Your task to perform on an android device: Search for Mexican restaurants on Maps Image 0: 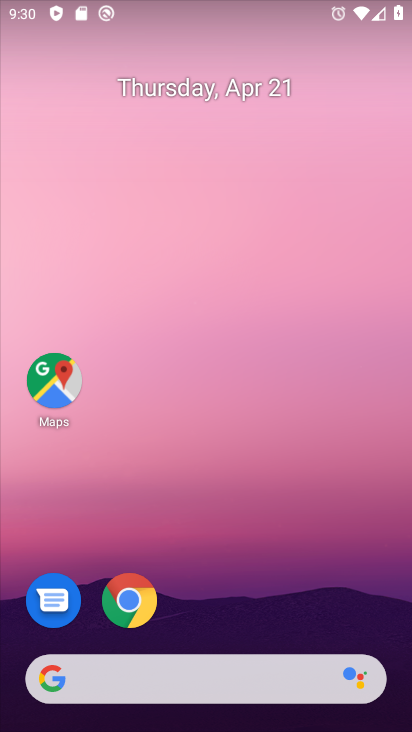
Step 0: click (53, 381)
Your task to perform on an android device: Search for Mexican restaurants on Maps Image 1: 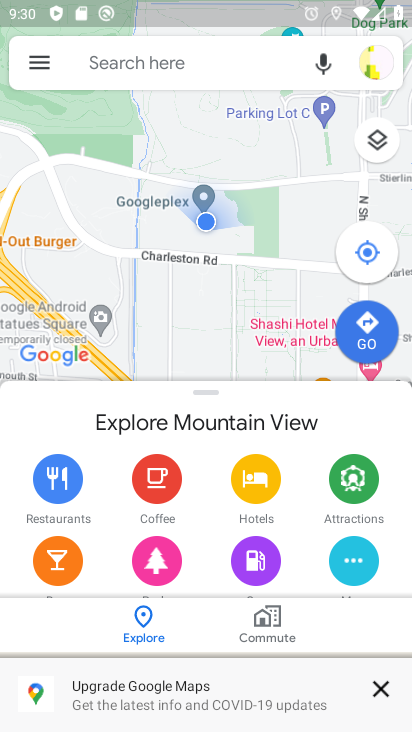
Step 1: click (196, 70)
Your task to perform on an android device: Search for Mexican restaurants on Maps Image 2: 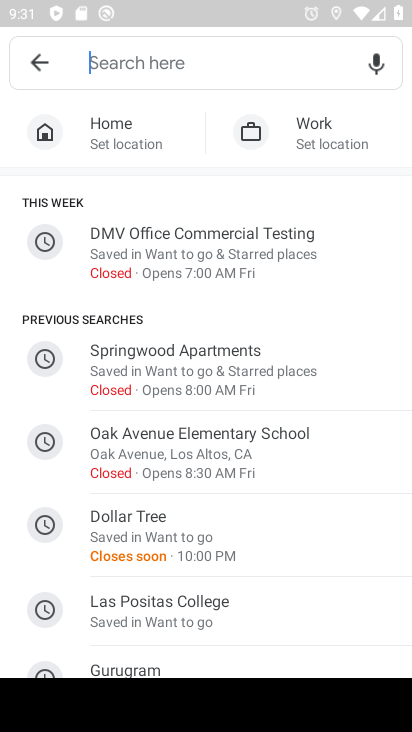
Step 2: type "mexican restaurentts"
Your task to perform on an android device: Search for Mexican restaurants on Maps Image 3: 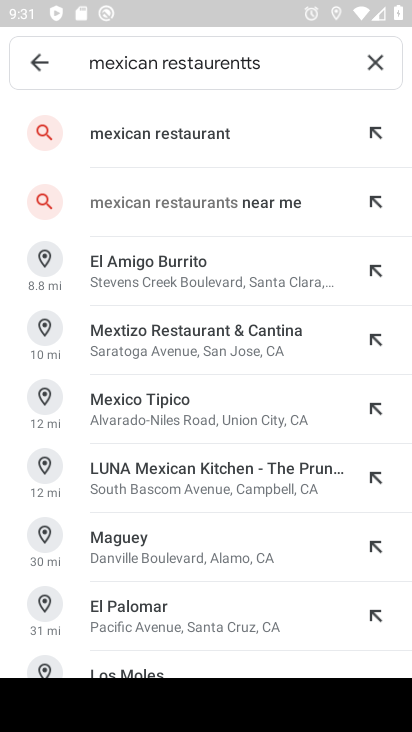
Step 3: click (197, 130)
Your task to perform on an android device: Search for Mexican restaurants on Maps Image 4: 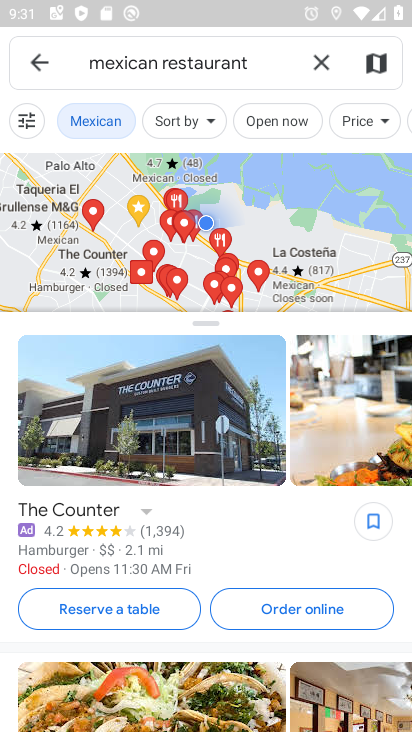
Step 4: task complete